Your task to perform on an android device: Open calendar and show me the fourth week of next month Image 0: 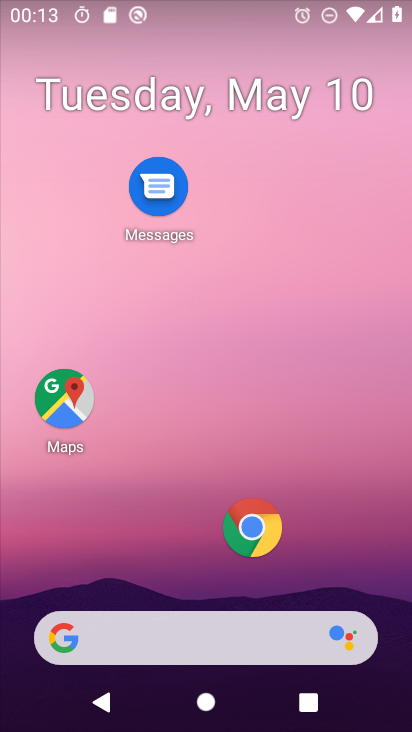
Step 0: drag from (185, 560) to (211, 89)
Your task to perform on an android device: Open calendar and show me the fourth week of next month Image 1: 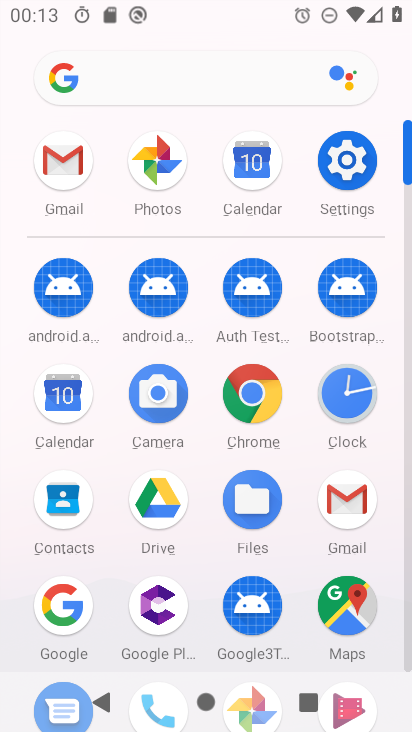
Step 1: click (69, 393)
Your task to perform on an android device: Open calendar and show me the fourth week of next month Image 2: 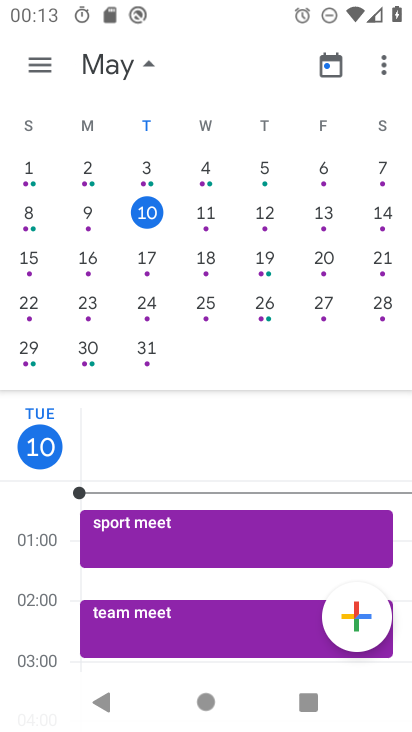
Step 2: drag from (361, 368) to (18, 350)
Your task to perform on an android device: Open calendar and show me the fourth week of next month Image 3: 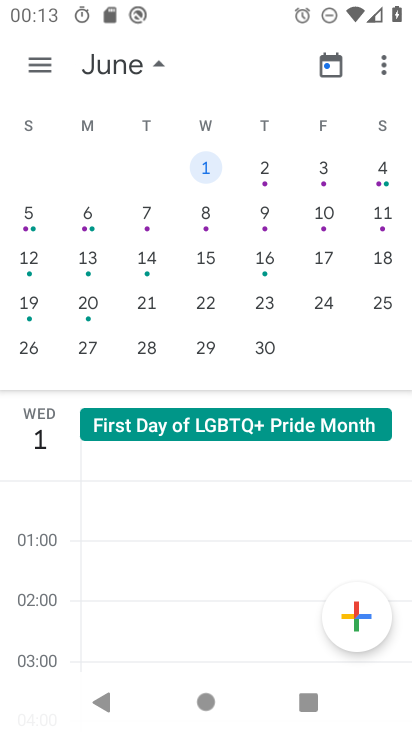
Step 3: click (205, 304)
Your task to perform on an android device: Open calendar and show me the fourth week of next month Image 4: 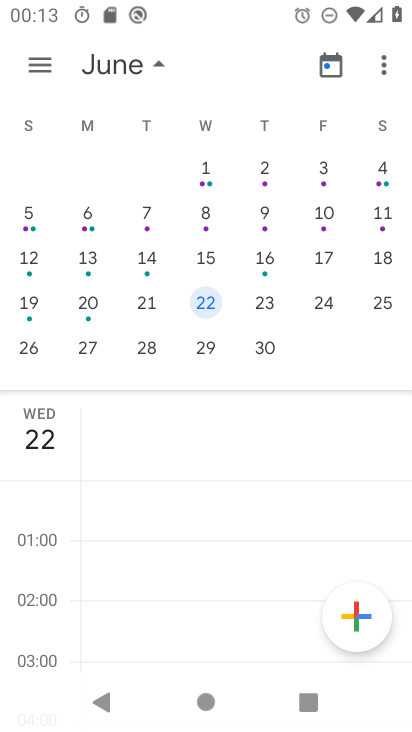
Step 4: task complete